Your task to perform on an android device: Open wifi settings Image 0: 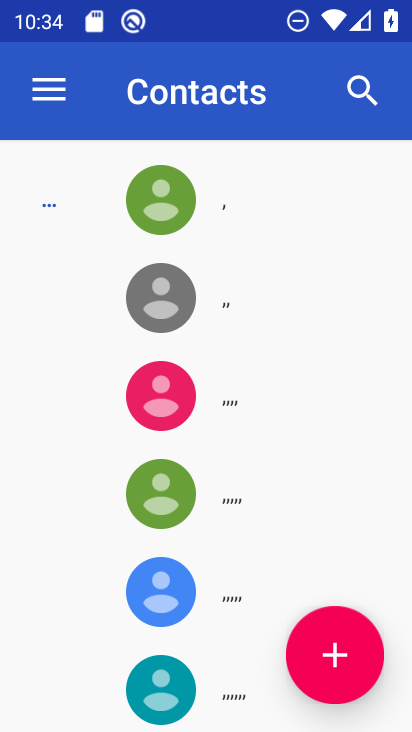
Step 0: press home button
Your task to perform on an android device: Open wifi settings Image 1: 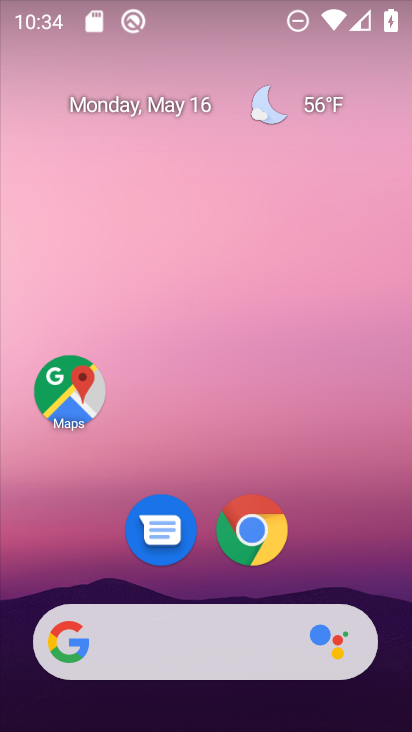
Step 1: drag from (254, 627) to (360, 13)
Your task to perform on an android device: Open wifi settings Image 2: 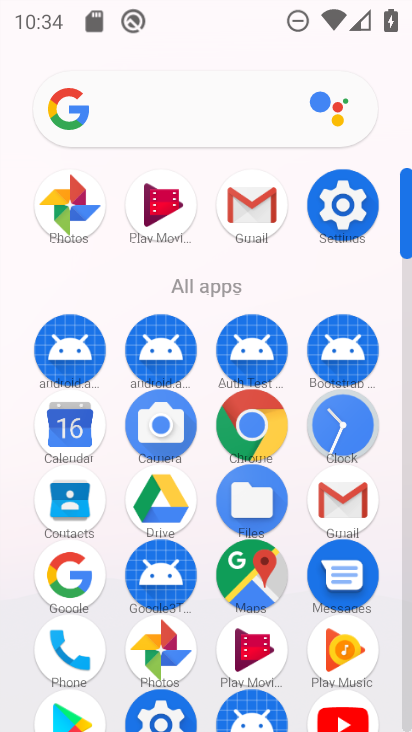
Step 2: click (342, 187)
Your task to perform on an android device: Open wifi settings Image 3: 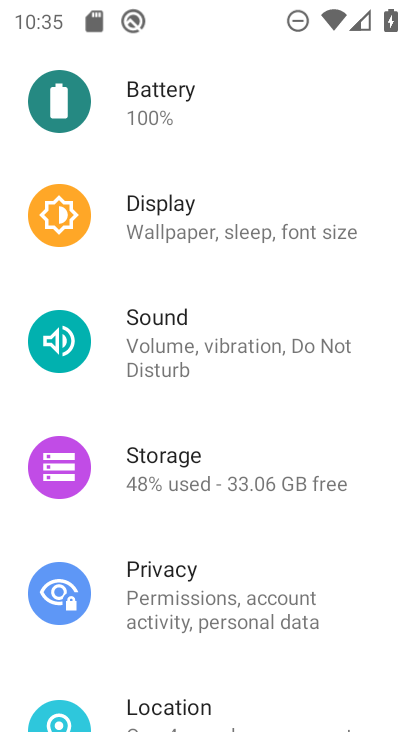
Step 3: drag from (234, 209) to (187, 710)
Your task to perform on an android device: Open wifi settings Image 4: 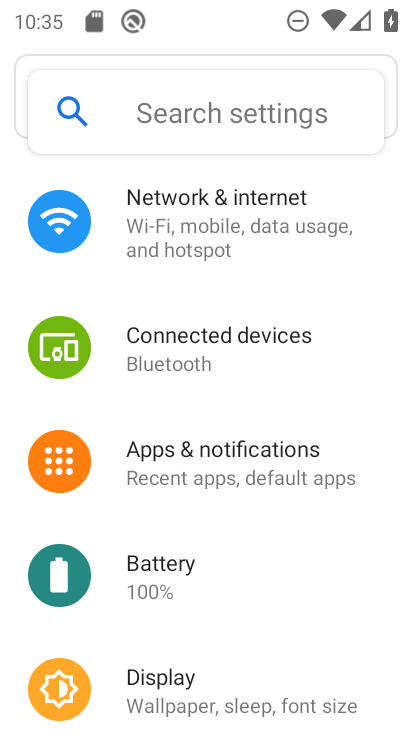
Step 4: click (205, 202)
Your task to perform on an android device: Open wifi settings Image 5: 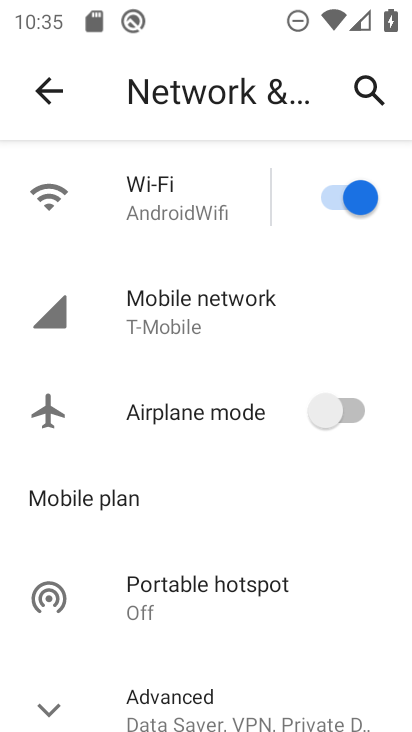
Step 5: click (143, 206)
Your task to perform on an android device: Open wifi settings Image 6: 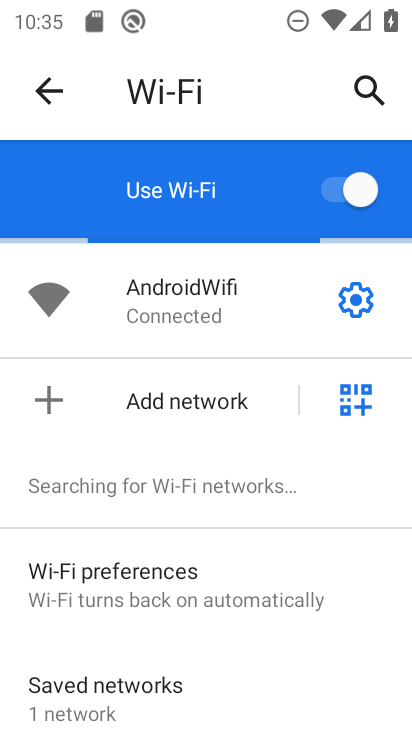
Step 6: task complete